Your task to perform on an android device: Show me the alarms in the clock app Image 0: 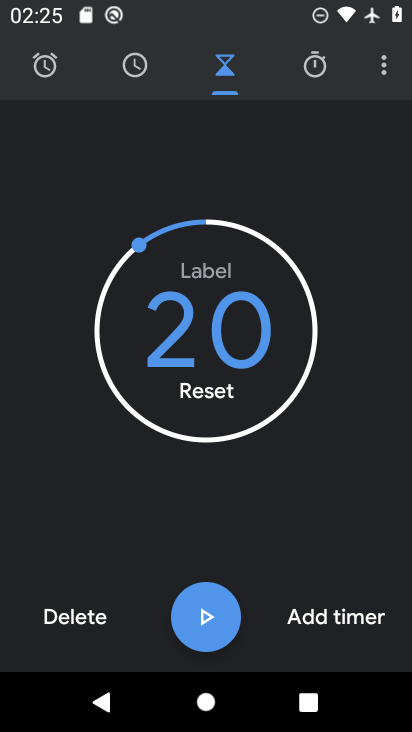
Step 0: press home button
Your task to perform on an android device: Show me the alarms in the clock app Image 1: 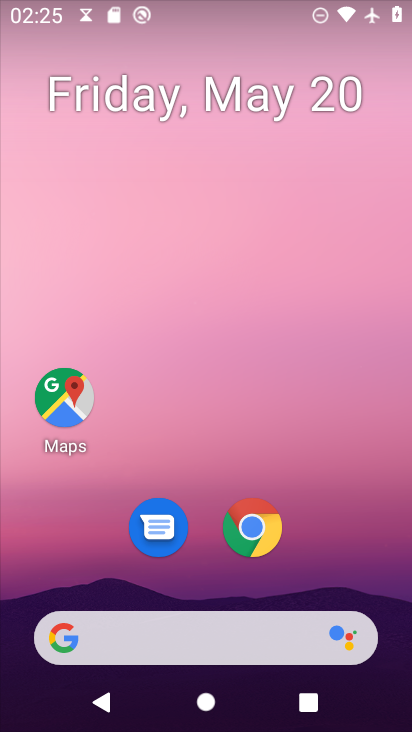
Step 1: drag from (175, 632) to (306, 181)
Your task to perform on an android device: Show me the alarms in the clock app Image 2: 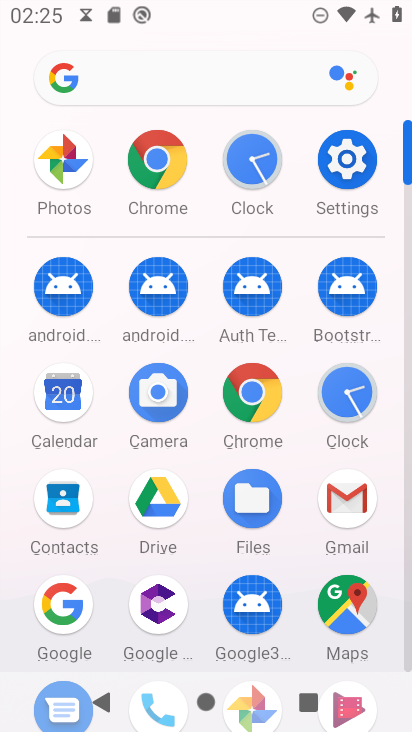
Step 2: click (253, 169)
Your task to perform on an android device: Show me the alarms in the clock app Image 3: 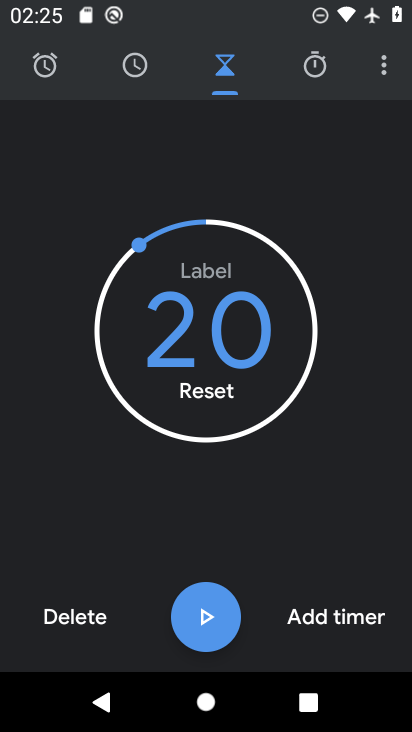
Step 3: click (47, 75)
Your task to perform on an android device: Show me the alarms in the clock app Image 4: 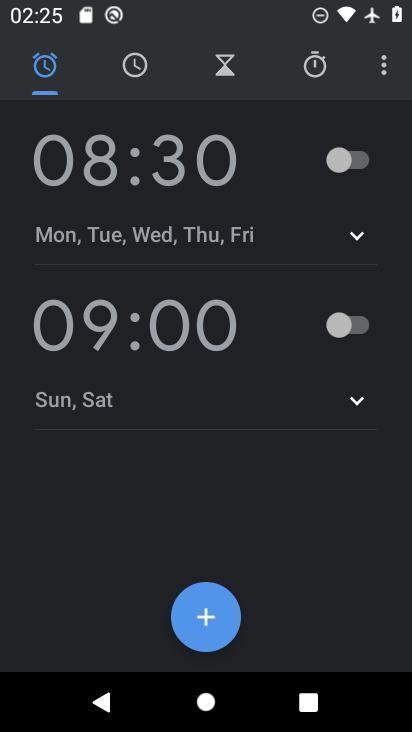
Step 4: task complete